Your task to perform on an android device: turn on bluetooth scan Image 0: 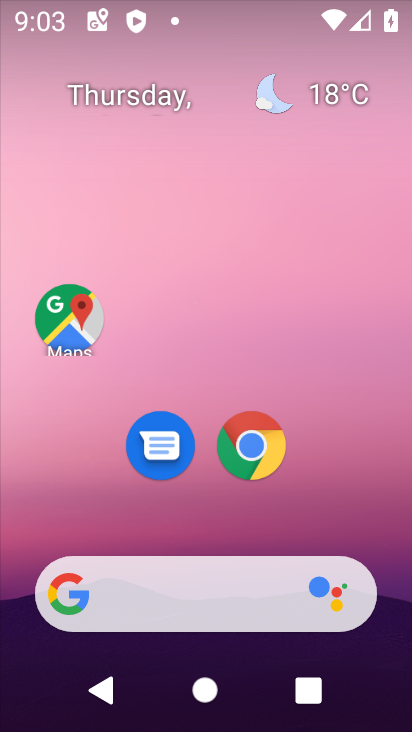
Step 0: drag from (382, 529) to (270, 151)
Your task to perform on an android device: turn on bluetooth scan Image 1: 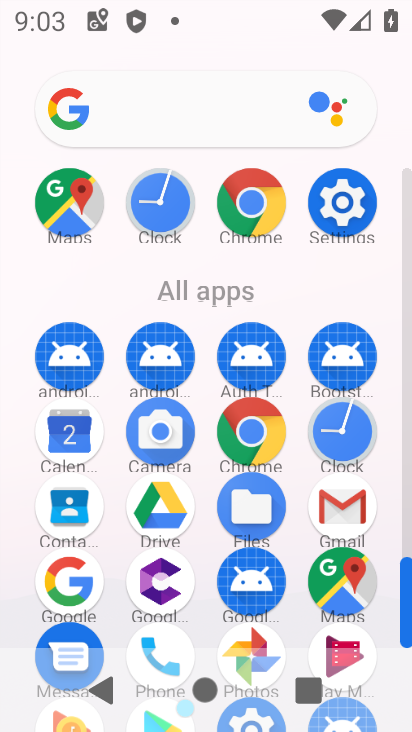
Step 1: click (339, 207)
Your task to perform on an android device: turn on bluetooth scan Image 2: 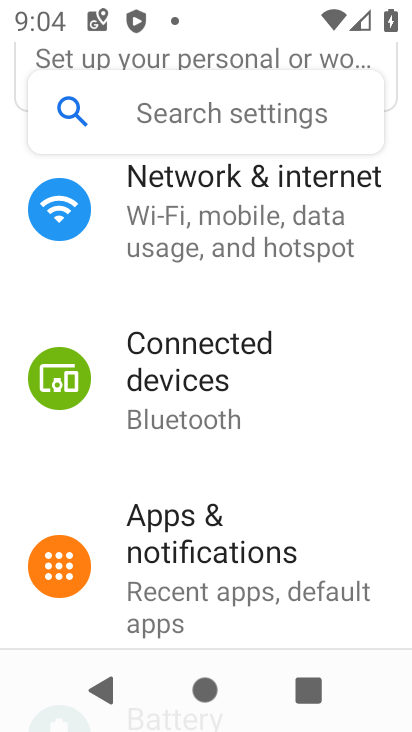
Step 2: drag from (228, 565) to (173, 175)
Your task to perform on an android device: turn on bluetooth scan Image 3: 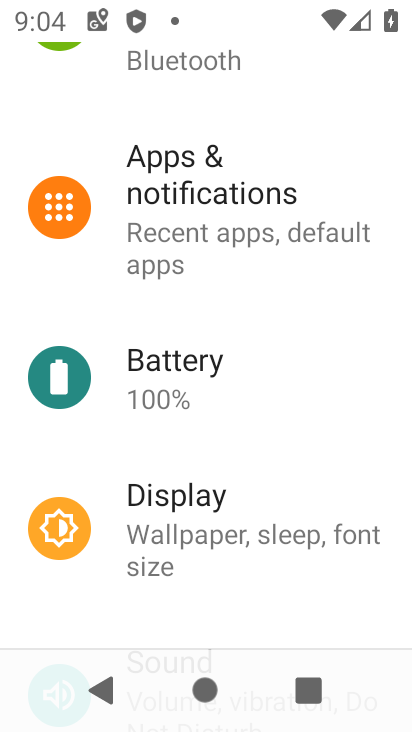
Step 3: drag from (276, 376) to (217, 128)
Your task to perform on an android device: turn on bluetooth scan Image 4: 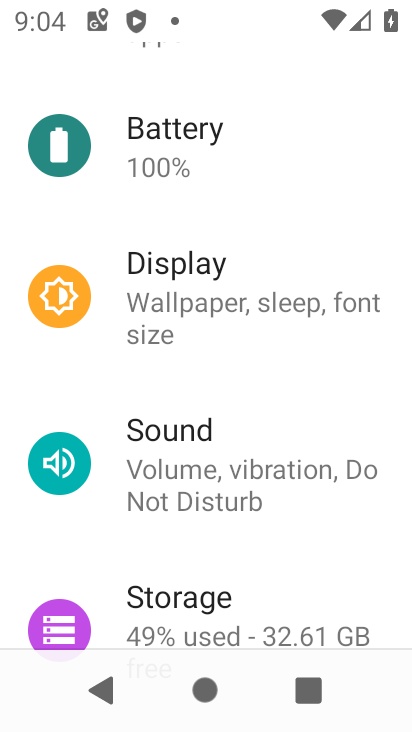
Step 4: drag from (286, 498) to (246, 276)
Your task to perform on an android device: turn on bluetooth scan Image 5: 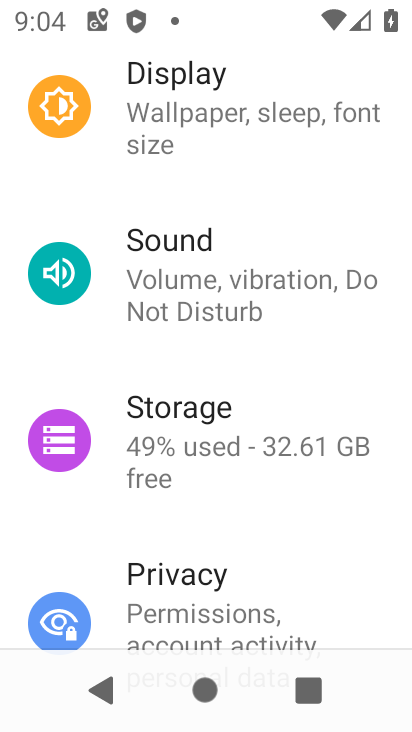
Step 5: drag from (286, 610) to (214, 212)
Your task to perform on an android device: turn on bluetooth scan Image 6: 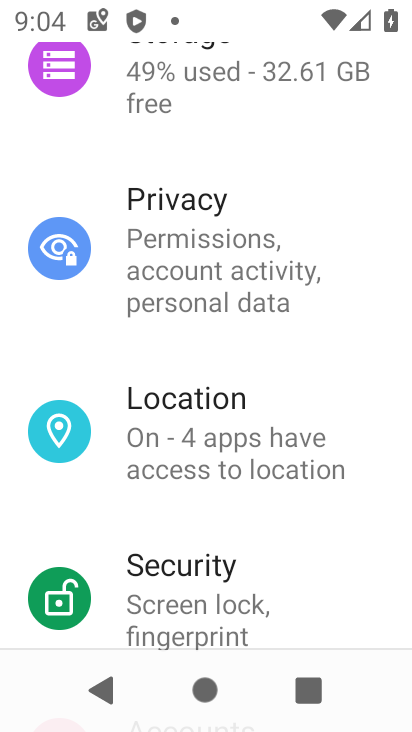
Step 6: click (307, 441)
Your task to perform on an android device: turn on bluetooth scan Image 7: 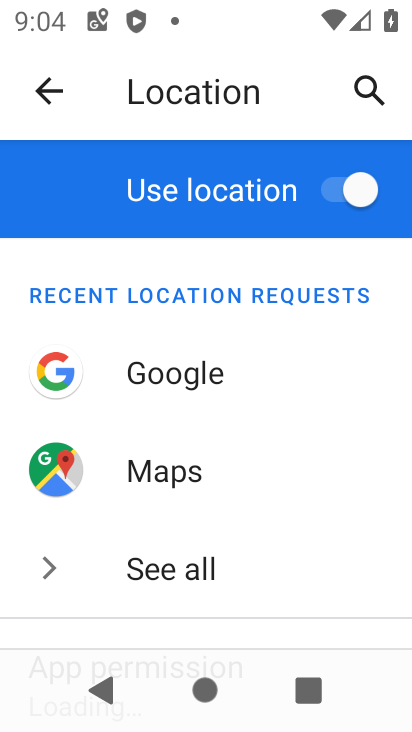
Step 7: drag from (305, 555) to (239, 228)
Your task to perform on an android device: turn on bluetooth scan Image 8: 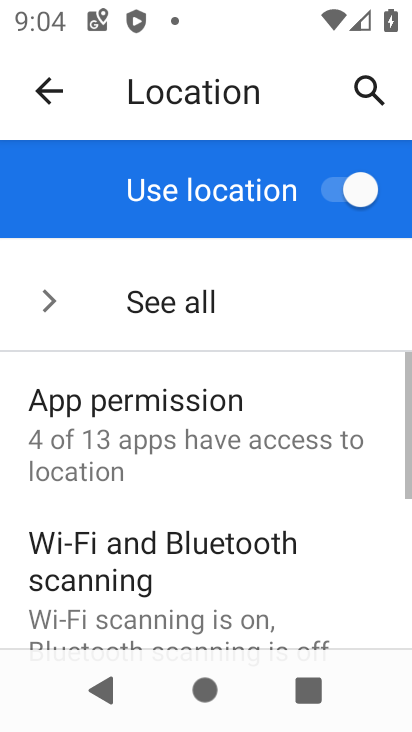
Step 8: drag from (239, 228) to (223, 77)
Your task to perform on an android device: turn on bluetooth scan Image 9: 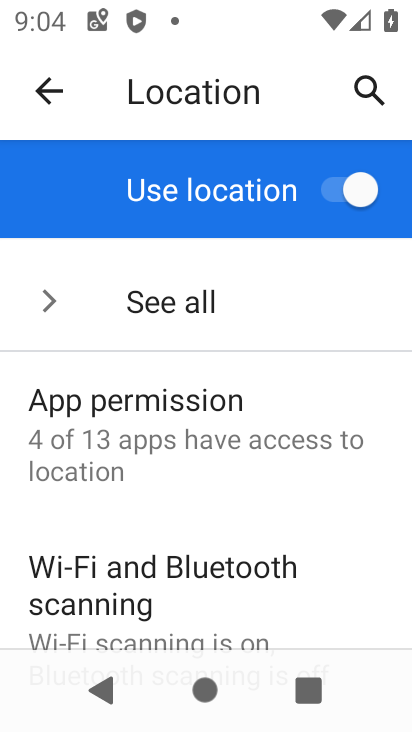
Step 9: click (218, 600)
Your task to perform on an android device: turn on bluetooth scan Image 10: 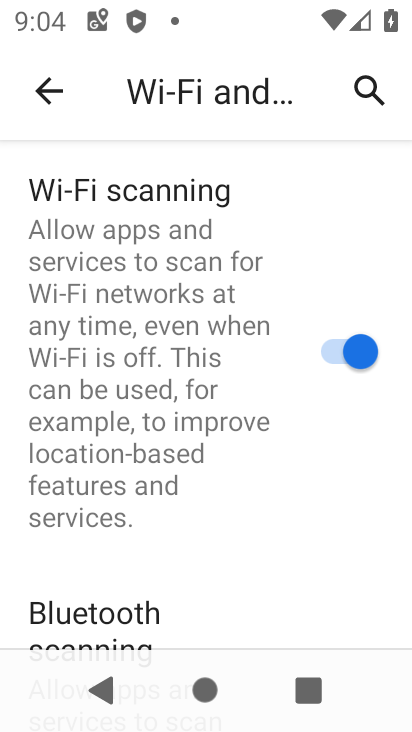
Step 10: drag from (291, 570) to (208, 189)
Your task to perform on an android device: turn on bluetooth scan Image 11: 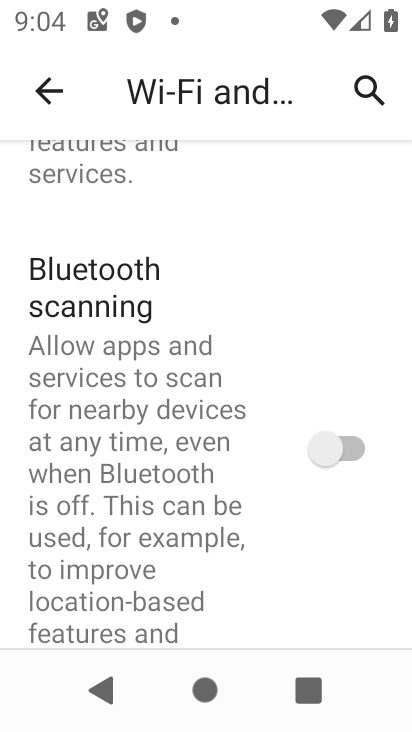
Step 11: click (349, 456)
Your task to perform on an android device: turn on bluetooth scan Image 12: 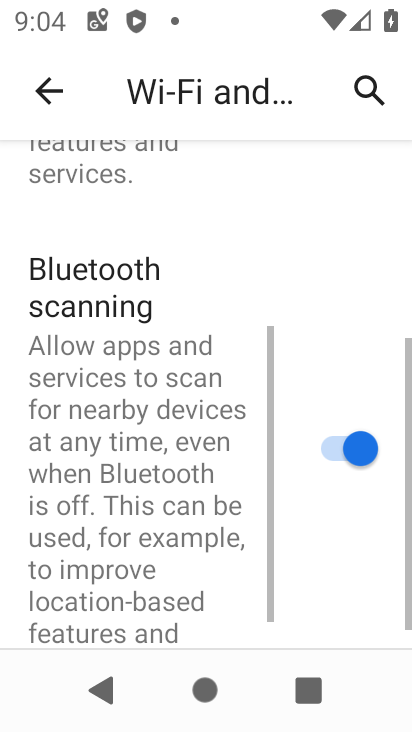
Step 12: task complete